Your task to perform on an android device: Go to battery settings Image 0: 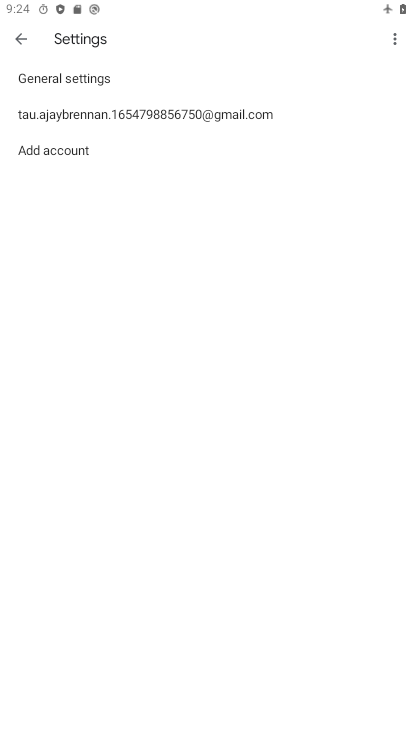
Step 0: press home button
Your task to perform on an android device: Go to battery settings Image 1: 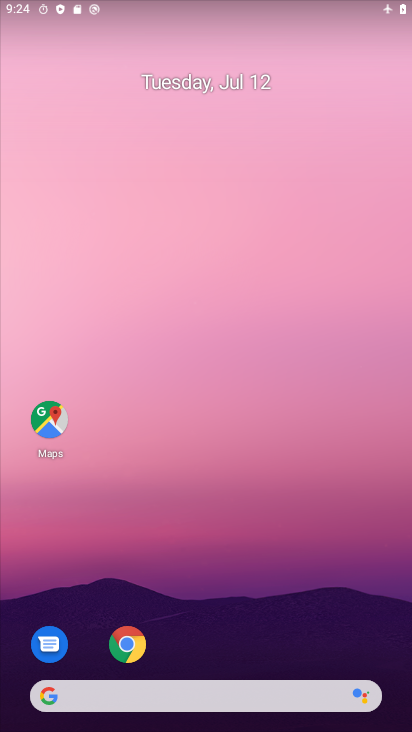
Step 1: drag from (210, 635) to (210, 90)
Your task to perform on an android device: Go to battery settings Image 2: 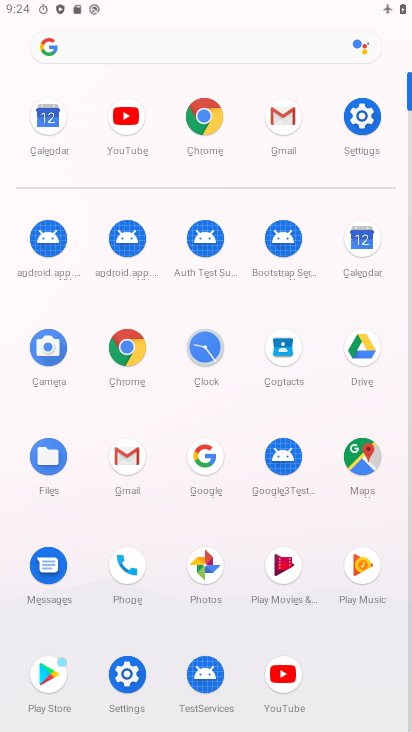
Step 2: click (357, 129)
Your task to perform on an android device: Go to battery settings Image 3: 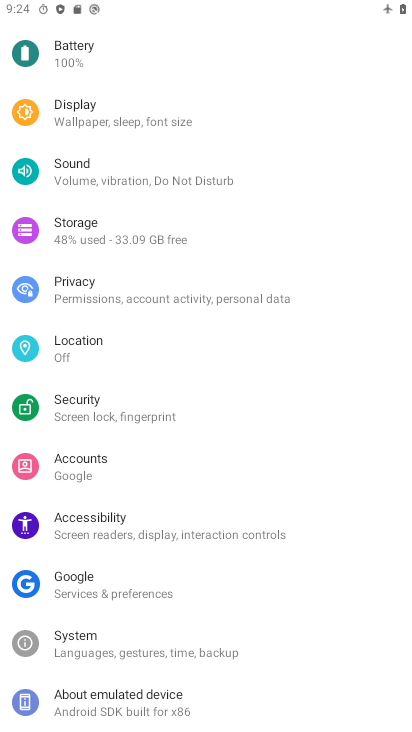
Step 3: click (100, 59)
Your task to perform on an android device: Go to battery settings Image 4: 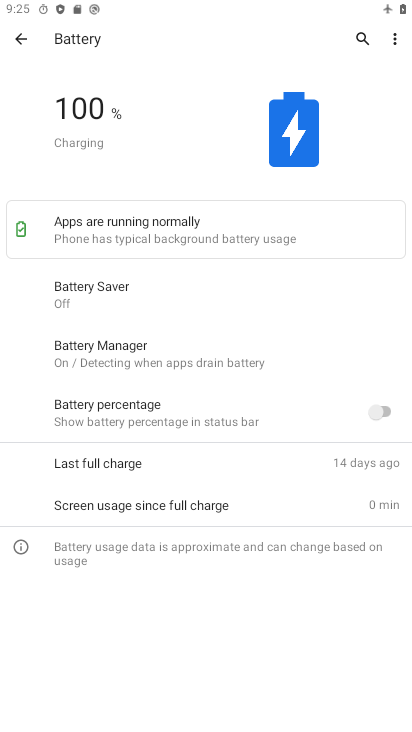
Step 4: task complete